Your task to perform on an android device: Open the calendar app, open the side menu, and click the "Day" option Image 0: 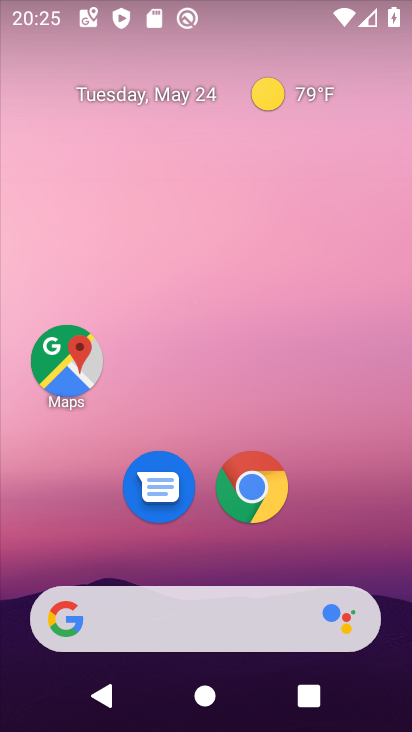
Step 0: drag from (20, 616) to (204, 228)
Your task to perform on an android device: Open the calendar app, open the side menu, and click the "Day" option Image 1: 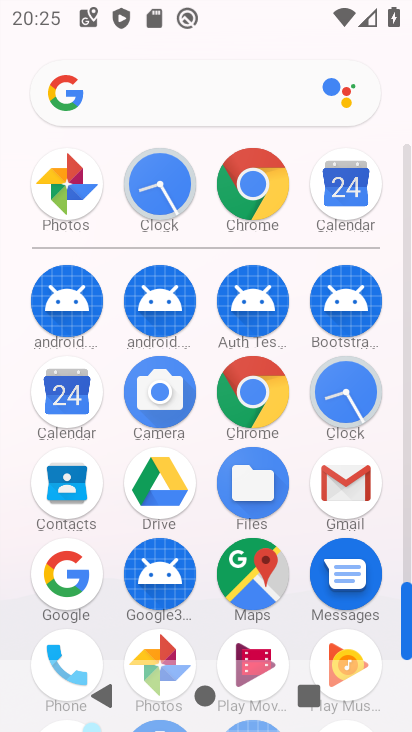
Step 1: click (65, 387)
Your task to perform on an android device: Open the calendar app, open the side menu, and click the "Day" option Image 2: 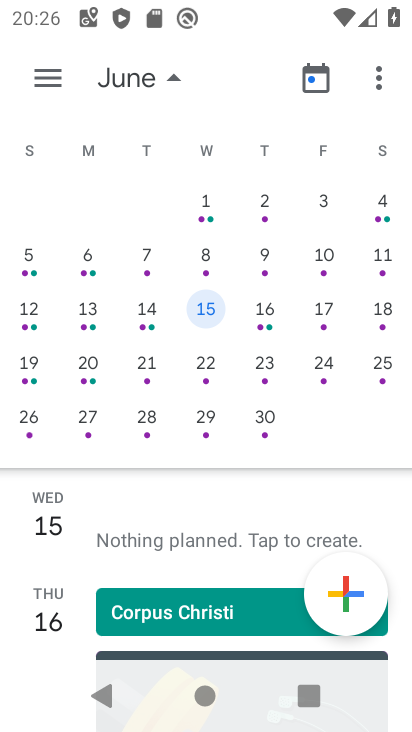
Step 2: drag from (125, 392) to (364, 291)
Your task to perform on an android device: Open the calendar app, open the side menu, and click the "Day" option Image 3: 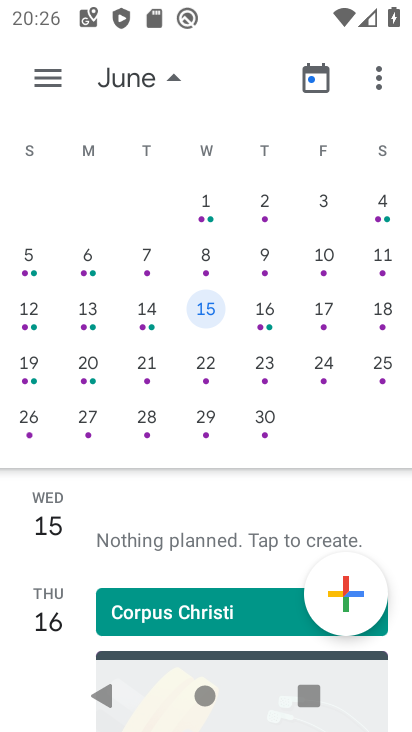
Step 3: click (55, 84)
Your task to perform on an android device: Open the calendar app, open the side menu, and click the "Day" option Image 4: 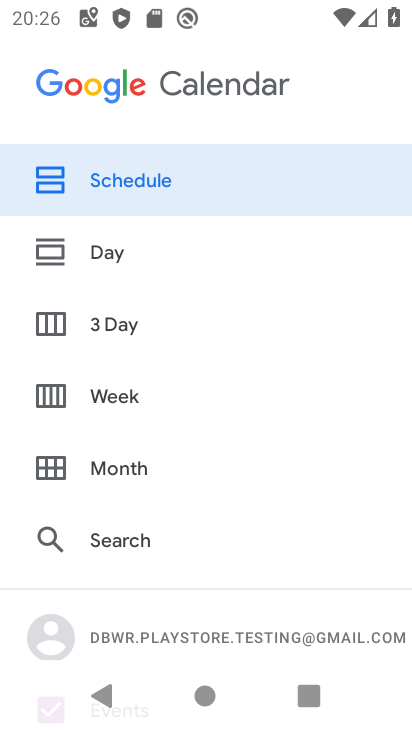
Step 4: click (74, 253)
Your task to perform on an android device: Open the calendar app, open the side menu, and click the "Day" option Image 5: 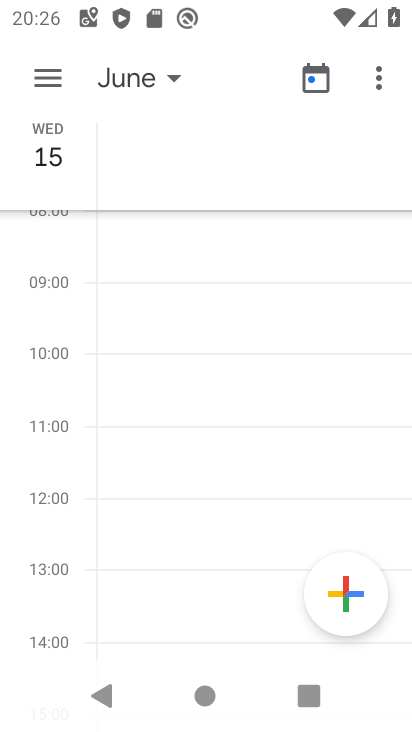
Step 5: task complete